Your task to perform on an android device: Go to network settings Image 0: 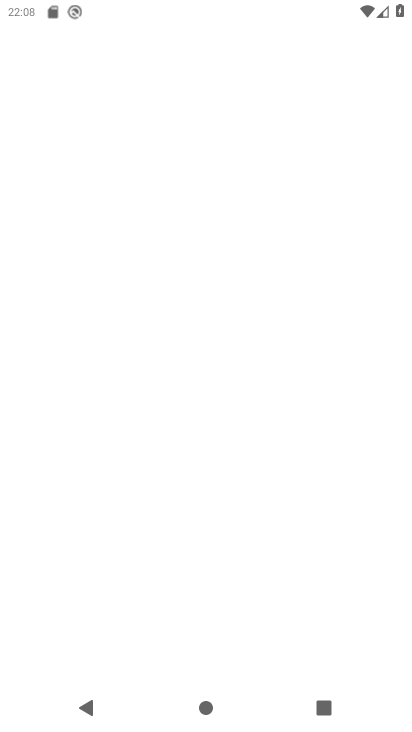
Step 0: press home button
Your task to perform on an android device: Go to network settings Image 1: 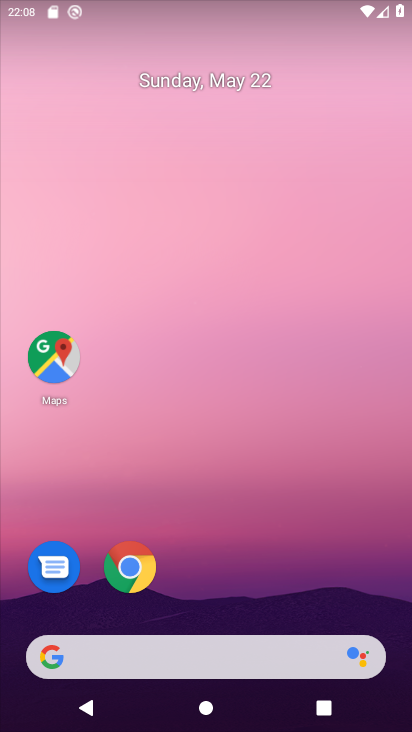
Step 1: drag from (194, 610) to (189, 123)
Your task to perform on an android device: Go to network settings Image 2: 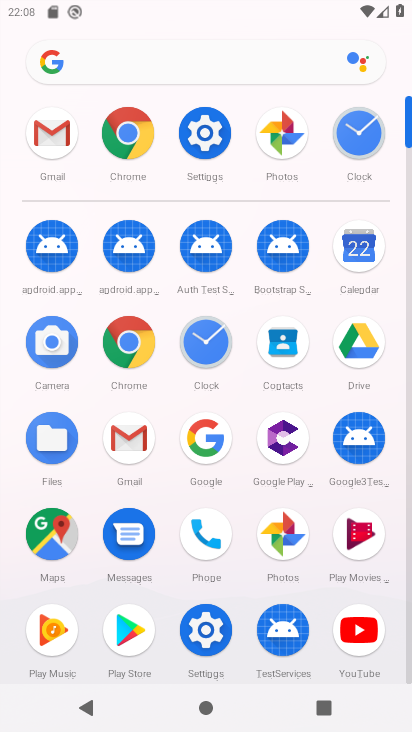
Step 2: click (204, 123)
Your task to perform on an android device: Go to network settings Image 3: 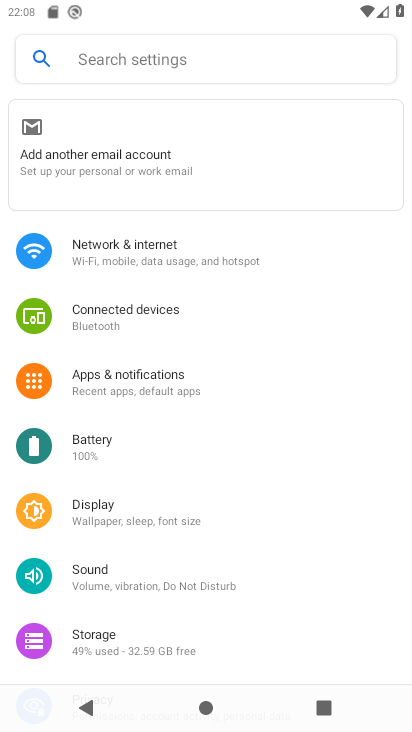
Step 3: click (200, 245)
Your task to perform on an android device: Go to network settings Image 4: 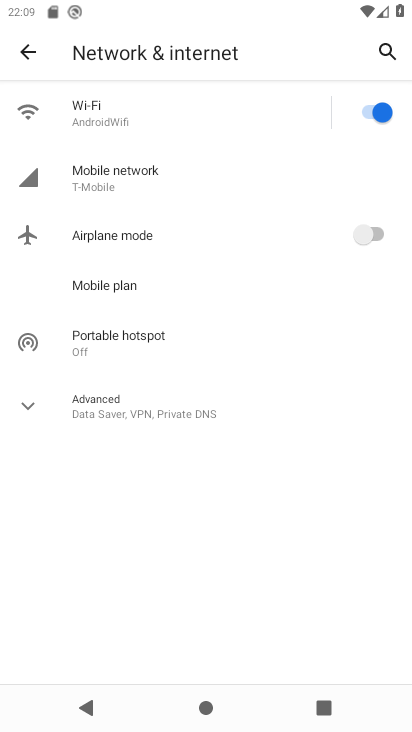
Step 4: click (51, 402)
Your task to perform on an android device: Go to network settings Image 5: 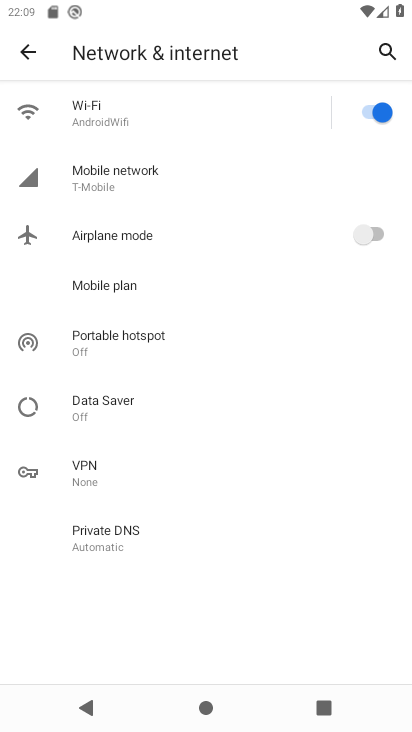
Step 5: task complete